Your task to perform on an android device: Open wifi settings Image 0: 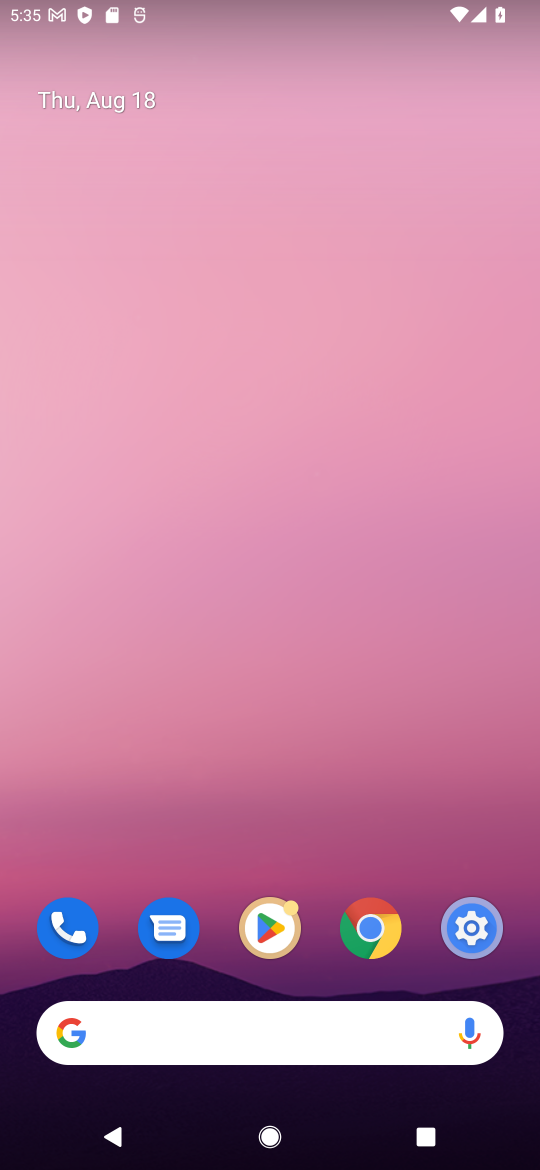
Step 0: drag from (365, 787) to (390, 47)
Your task to perform on an android device: Open wifi settings Image 1: 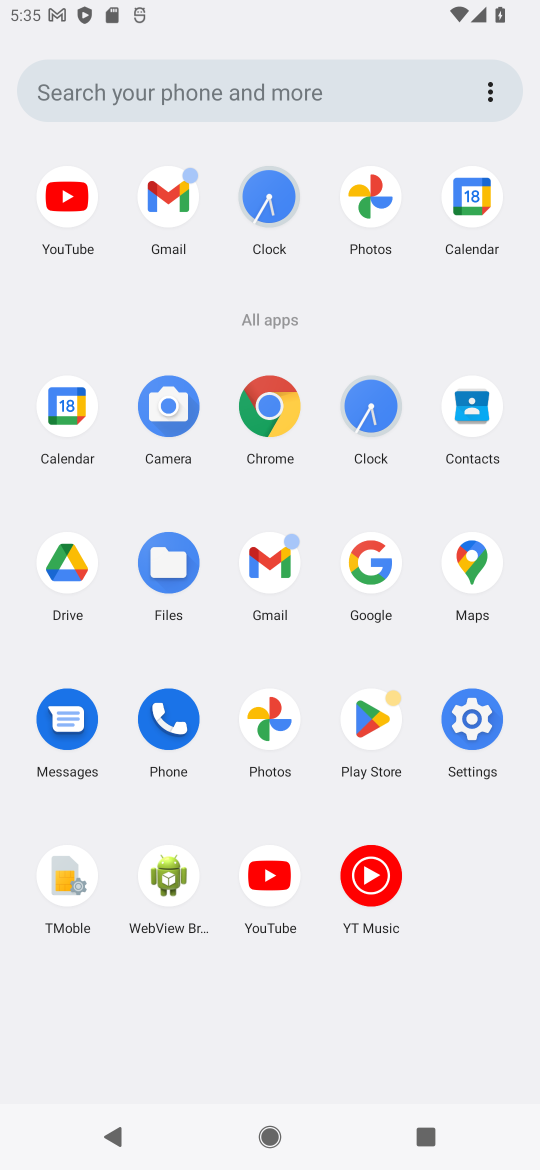
Step 1: click (475, 716)
Your task to perform on an android device: Open wifi settings Image 2: 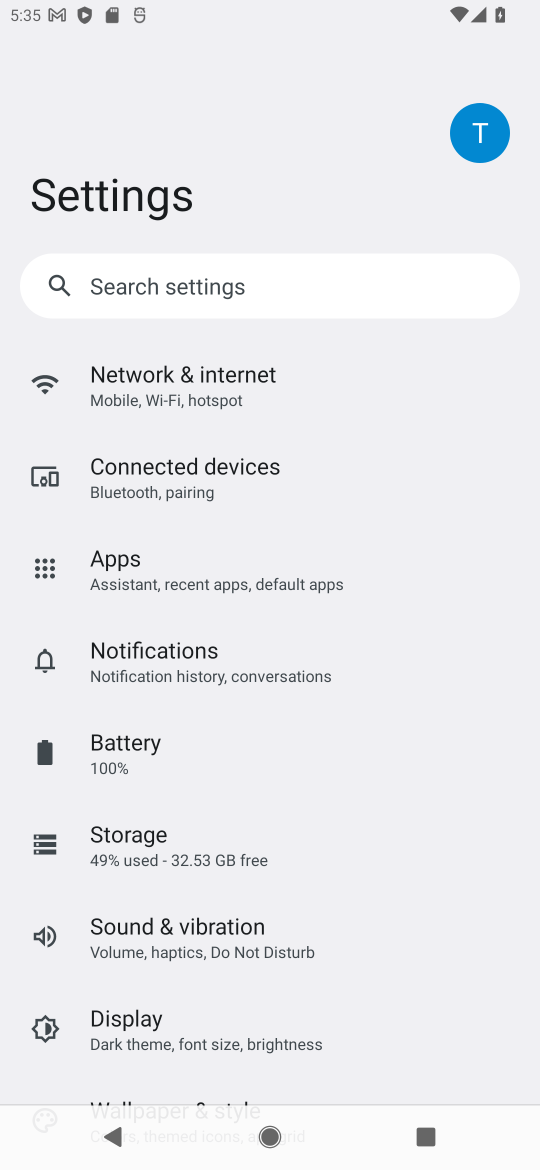
Step 2: click (271, 375)
Your task to perform on an android device: Open wifi settings Image 3: 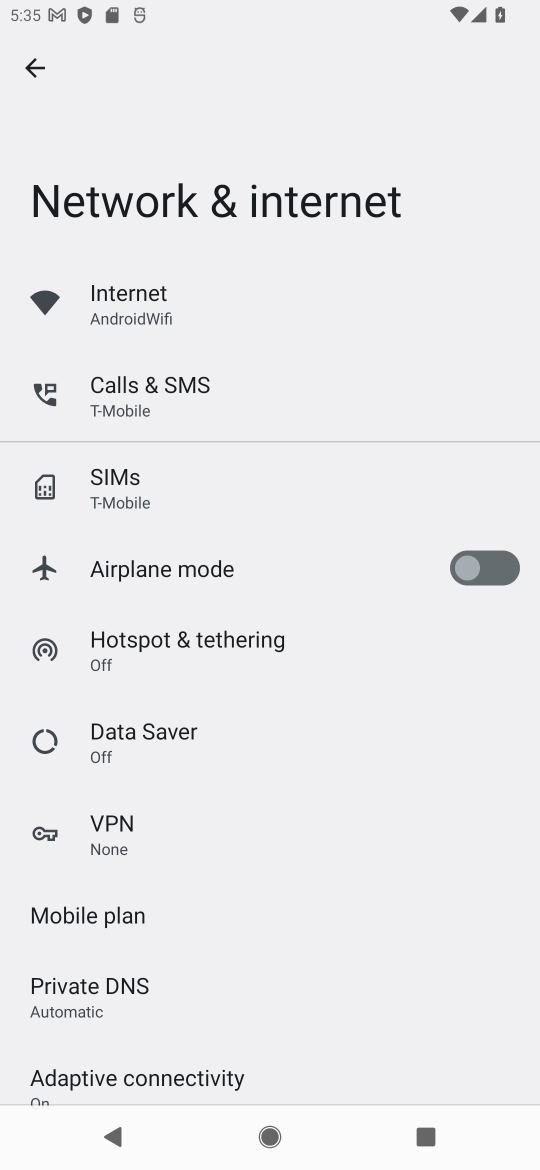
Step 3: click (156, 298)
Your task to perform on an android device: Open wifi settings Image 4: 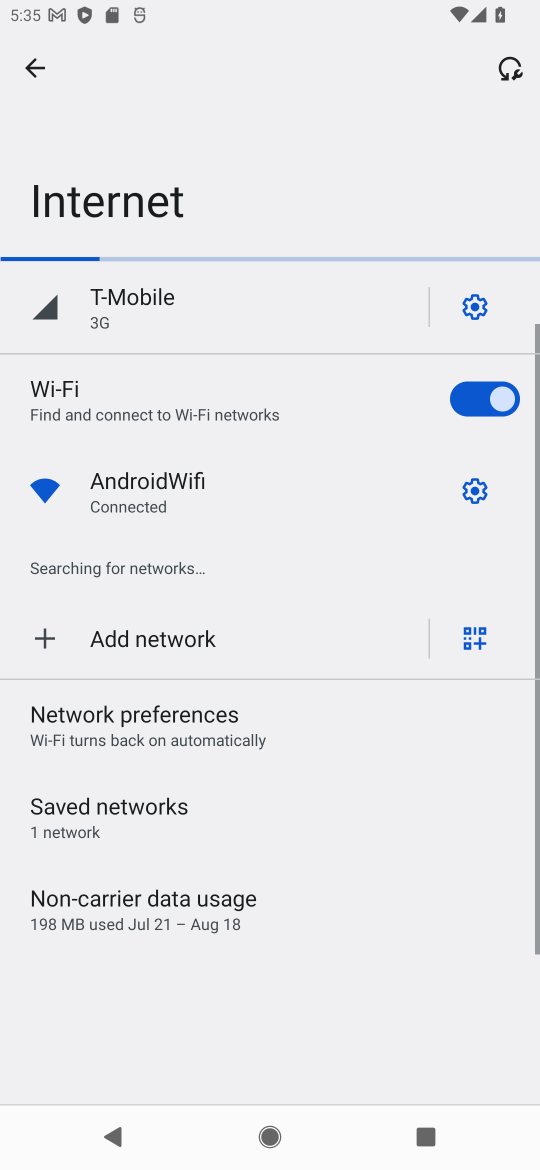
Step 4: click (482, 484)
Your task to perform on an android device: Open wifi settings Image 5: 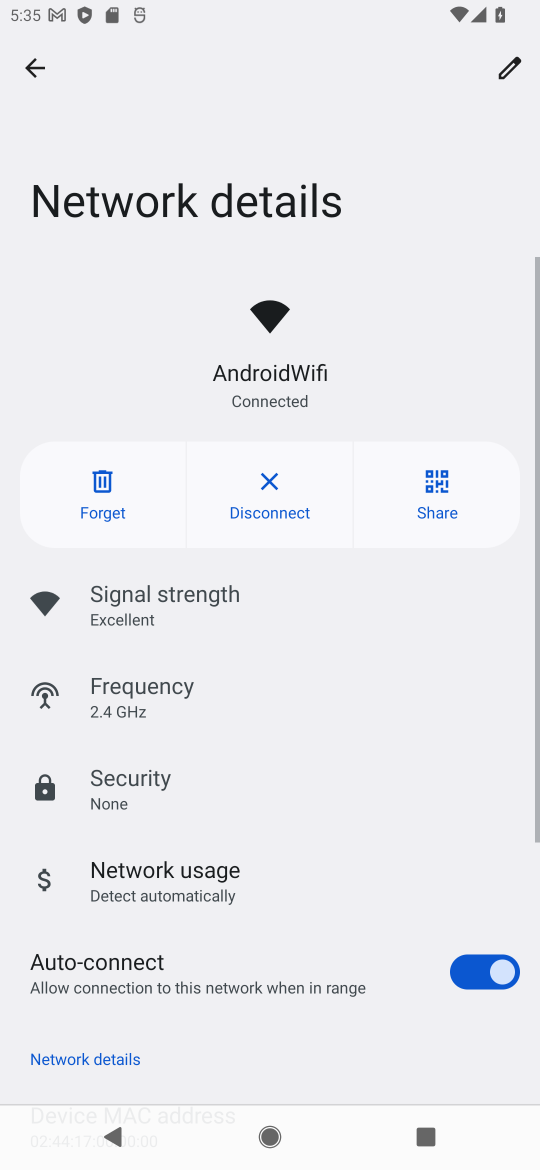
Step 5: task complete